Your task to perform on an android device: Search for seafood restaurants on Google Maps Image 0: 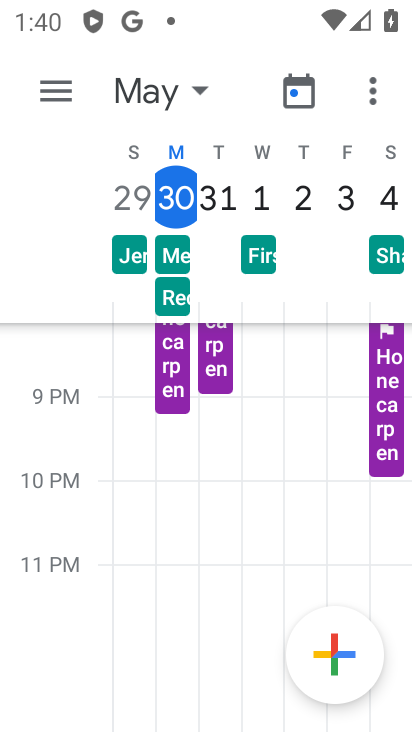
Step 0: press home button
Your task to perform on an android device: Search for seafood restaurants on Google Maps Image 1: 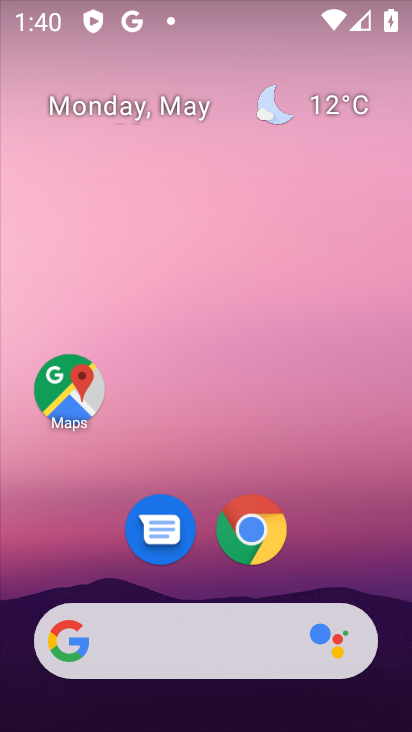
Step 1: click (74, 384)
Your task to perform on an android device: Search for seafood restaurants on Google Maps Image 2: 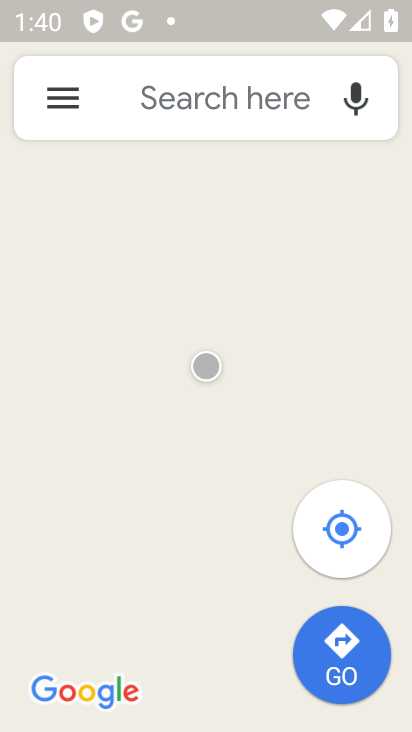
Step 2: click (194, 94)
Your task to perform on an android device: Search for seafood restaurants on Google Maps Image 3: 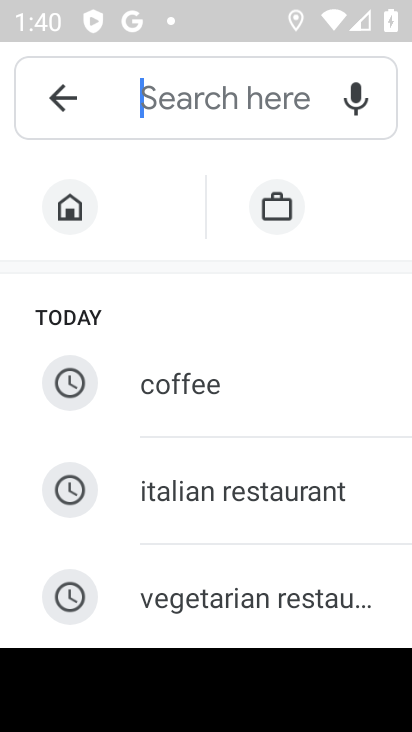
Step 3: type "seafood restaurants"
Your task to perform on an android device: Search for seafood restaurants on Google Maps Image 4: 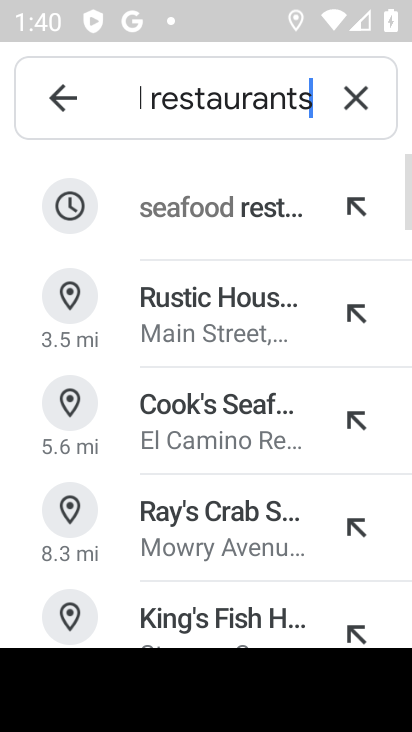
Step 4: click (198, 203)
Your task to perform on an android device: Search for seafood restaurants on Google Maps Image 5: 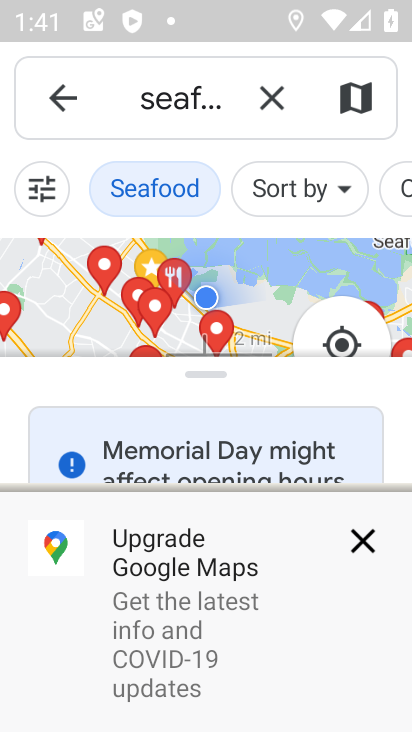
Step 5: click (363, 543)
Your task to perform on an android device: Search for seafood restaurants on Google Maps Image 6: 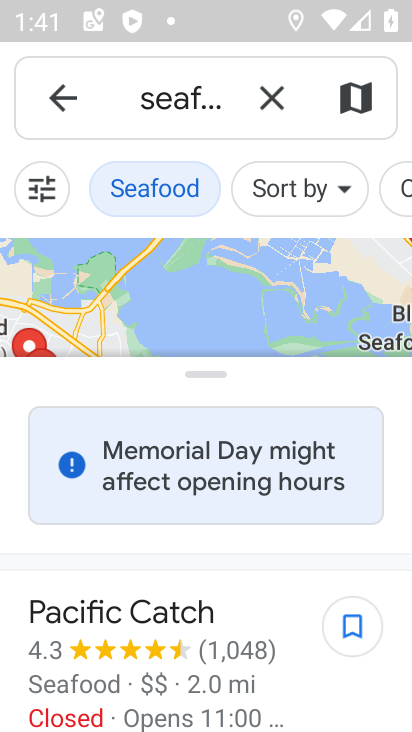
Step 6: task complete